Your task to perform on an android device: Go to accessibility settings Image 0: 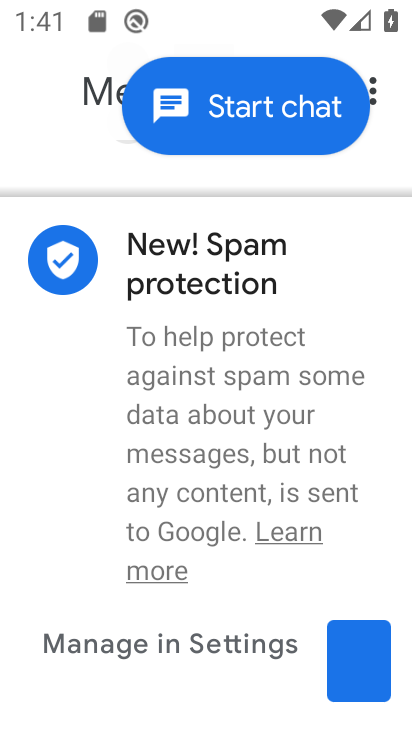
Step 0: press home button
Your task to perform on an android device: Go to accessibility settings Image 1: 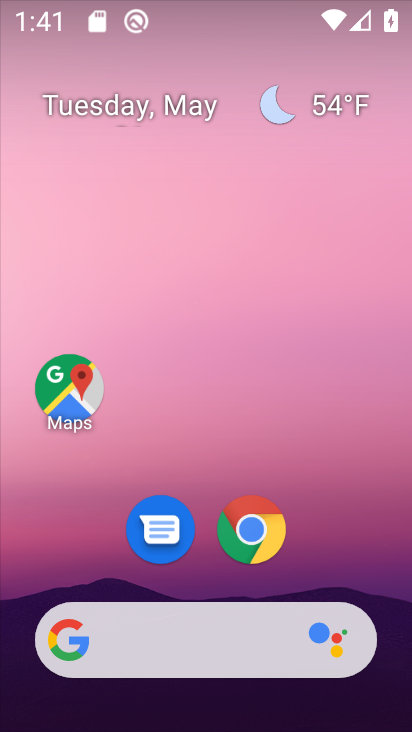
Step 1: drag from (315, 547) to (281, 229)
Your task to perform on an android device: Go to accessibility settings Image 2: 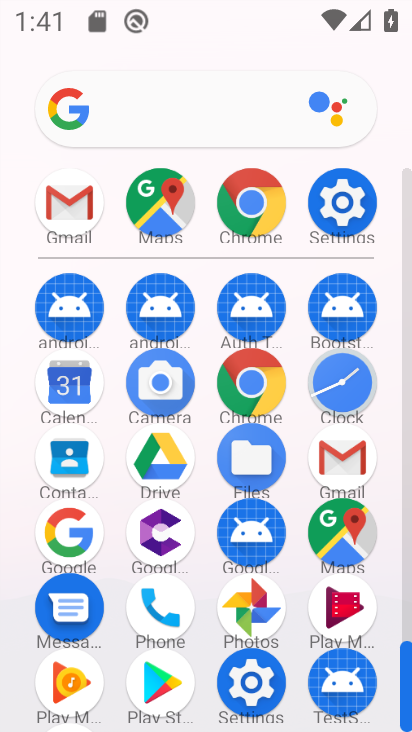
Step 2: click (327, 210)
Your task to perform on an android device: Go to accessibility settings Image 3: 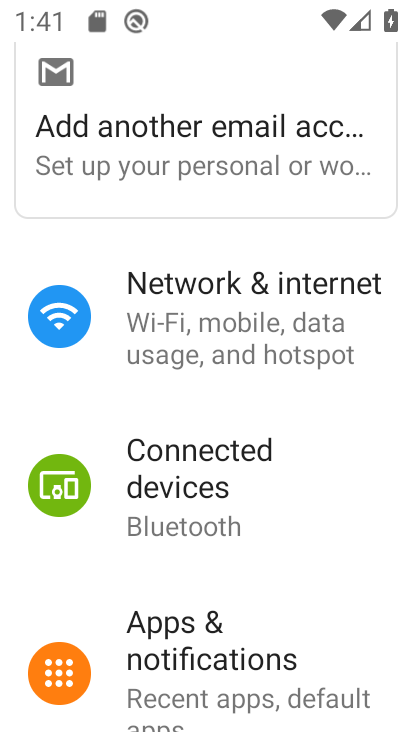
Step 3: drag from (286, 642) to (276, 247)
Your task to perform on an android device: Go to accessibility settings Image 4: 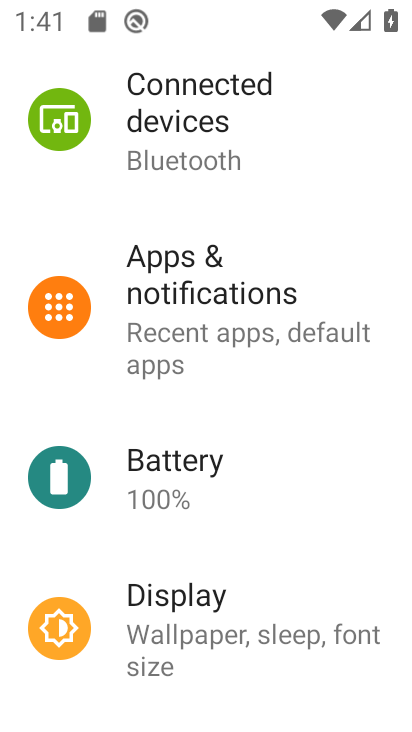
Step 4: drag from (223, 573) to (260, 193)
Your task to perform on an android device: Go to accessibility settings Image 5: 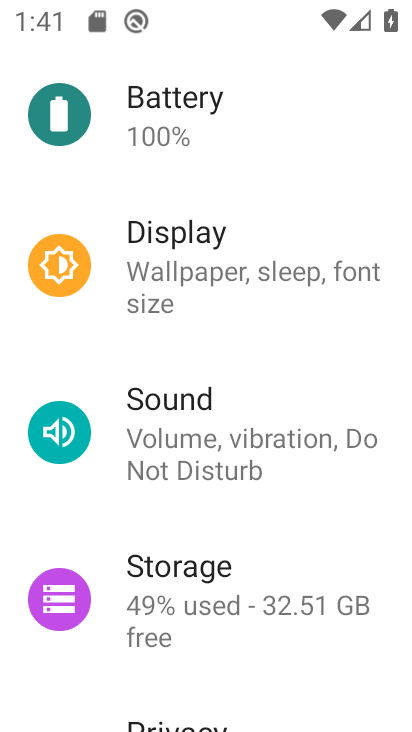
Step 5: drag from (248, 536) to (273, 181)
Your task to perform on an android device: Go to accessibility settings Image 6: 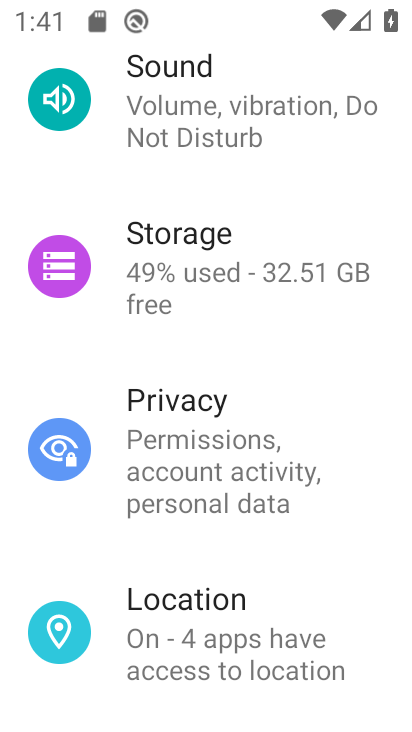
Step 6: drag from (252, 563) to (298, 192)
Your task to perform on an android device: Go to accessibility settings Image 7: 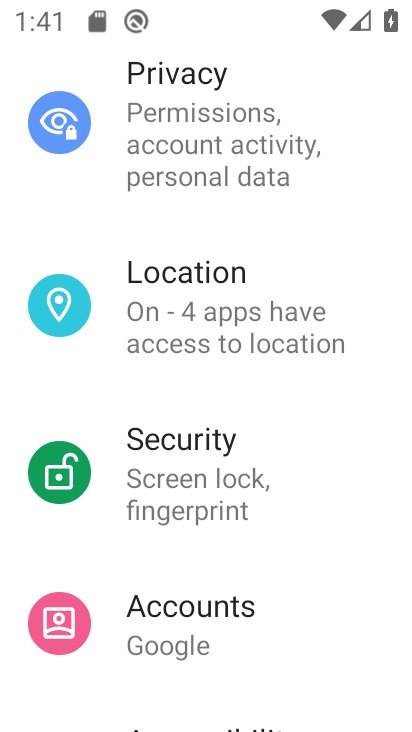
Step 7: drag from (242, 537) to (317, 202)
Your task to perform on an android device: Go to accessibility settings Image 8: 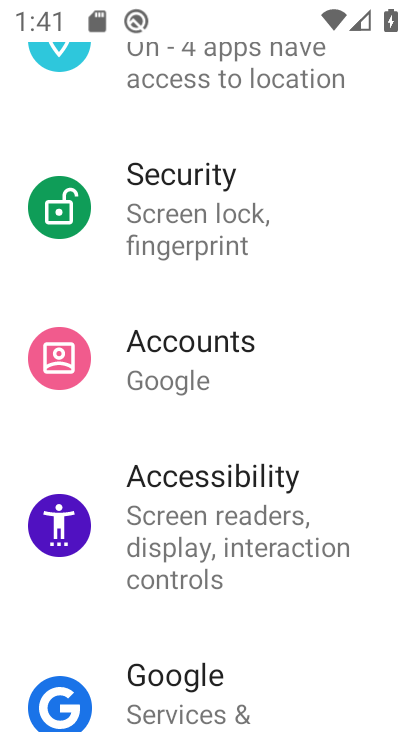
Step 8: click (224, 513)
Your task to perform on an android device: Go to accessibility settings Image 9: 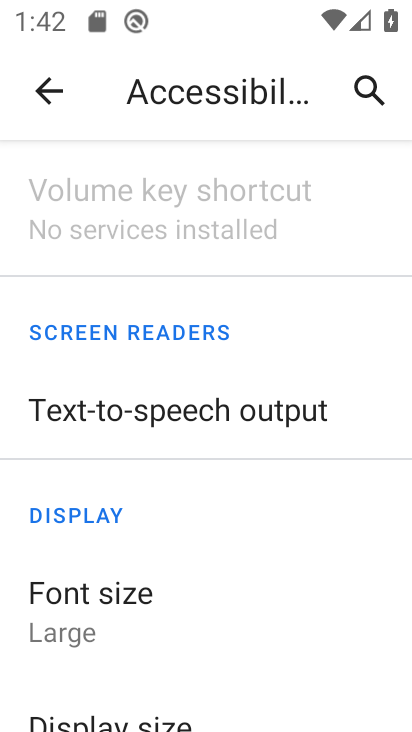
Step 9: task complete